Your task to perform on an android device: open a bookmark in the chrome app Image 0: 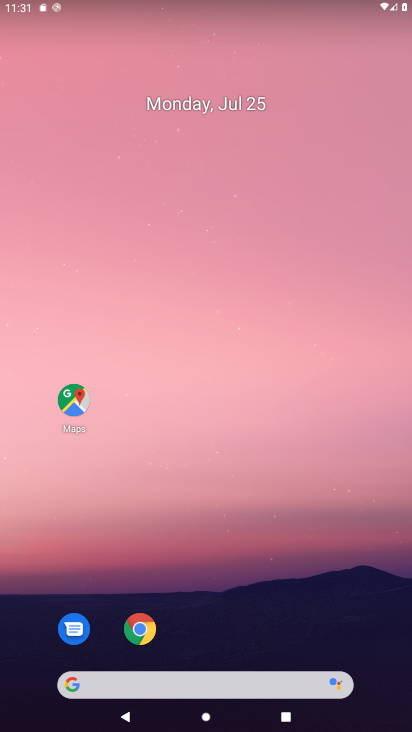
Step 0: click (144, 631)
Your task to perform on an android device: open a bookmark in the chrome app Image 1: 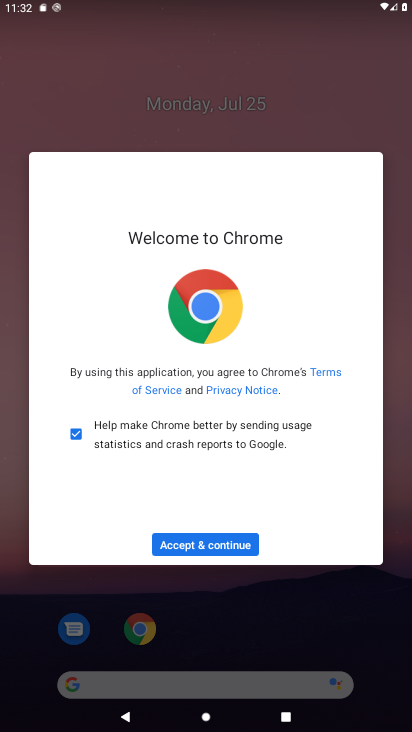
Step 1: click (209, 550)
Your task to perform on an android device: open a bookmark in the chrome app Image 2: 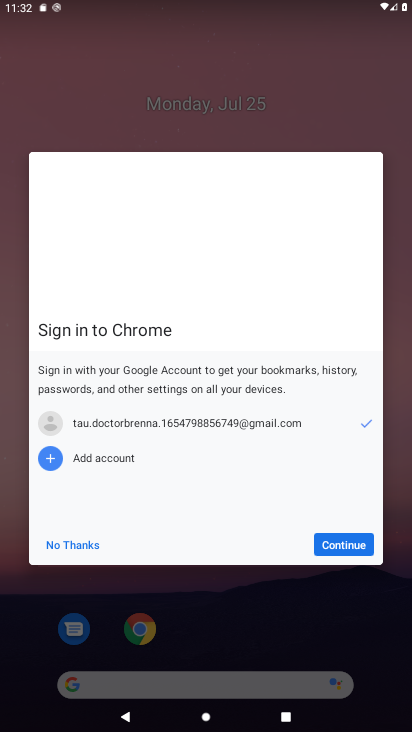
Step 2: click (365, 539)
Your task to perform on an android device: open a bookmark in the chrome app Image 3: 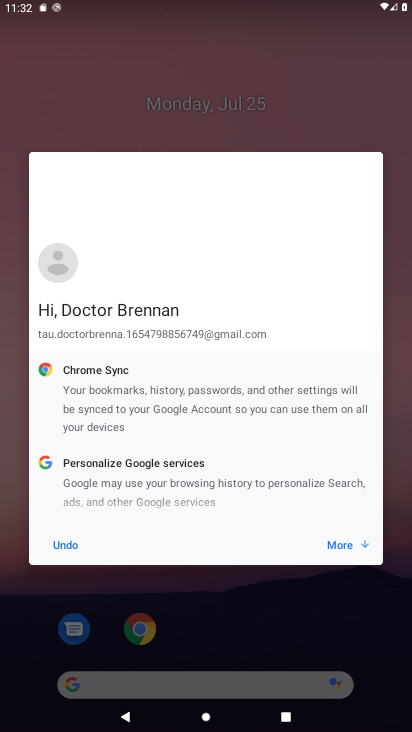
Step 3: click (342, 547)
Your task to perform on an android device: open a bookmark in the chrome app Image 4: 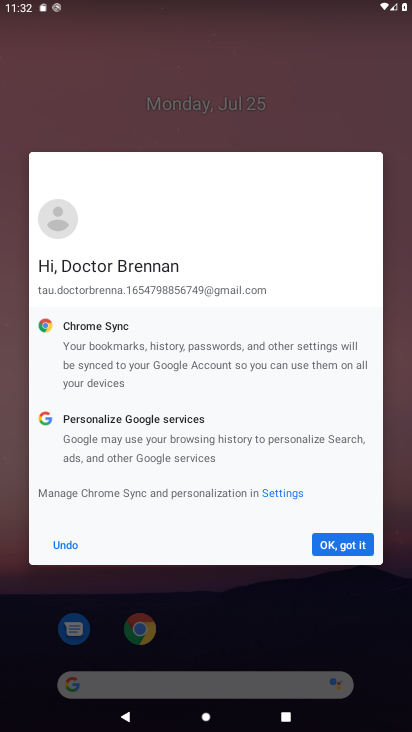
Step 4: click (342, 547)
Your task to perform on an android device: open a bookmark in the chrome app Image 5: 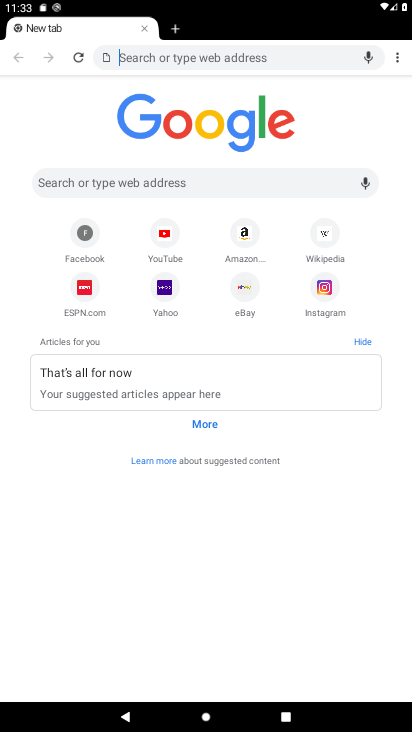
Step 5: drag from (400, 52) to (283, 110)
Your task to perform on an android device: open a bookmark in the chrome app Image 6: 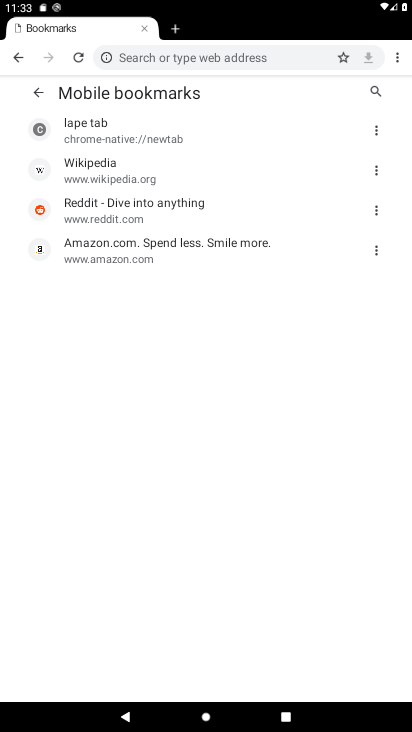
Step 6: click (164, 245)
Your task to perform on an android device: open a bookmark in the chrome app Image 7: 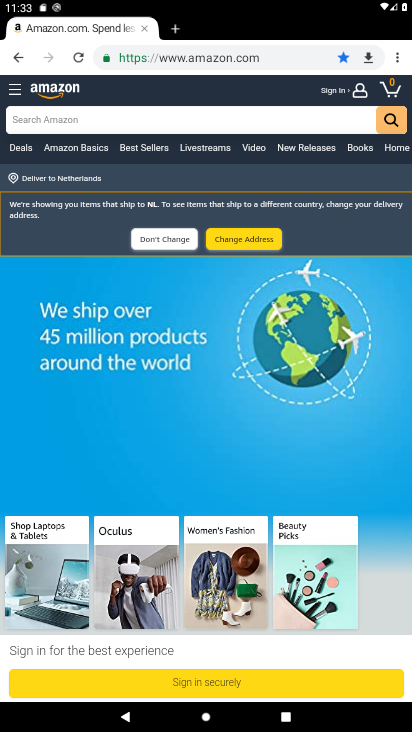
Step 7: task complete